Your task to perform on an android device: Open Youtube and go to "Your channel" Image 0: 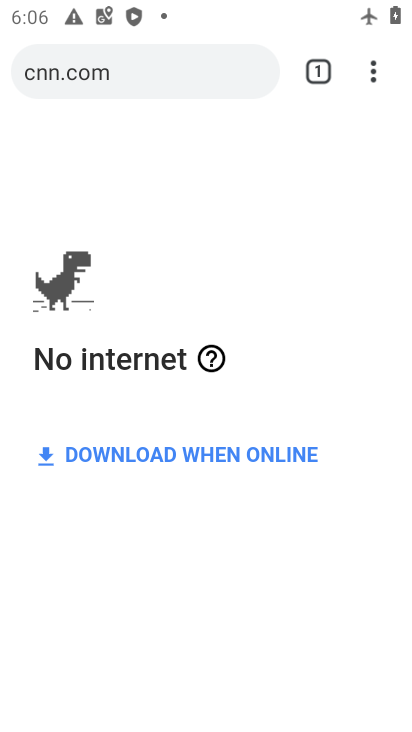
Step 0: press home button
Your task to perform on an android device: Open Youtube and go to "Your channel" Image 1: 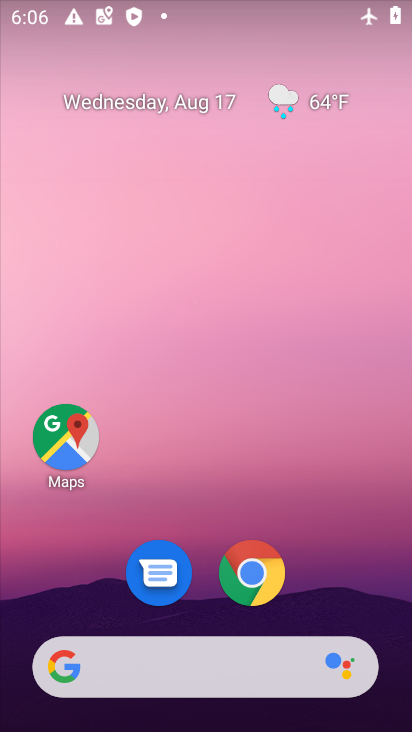
Step 1: drag from (328, 549) to (258, 225)
Your task to perform on an android device: Open Youtube and go to "Your channel" Image 2: 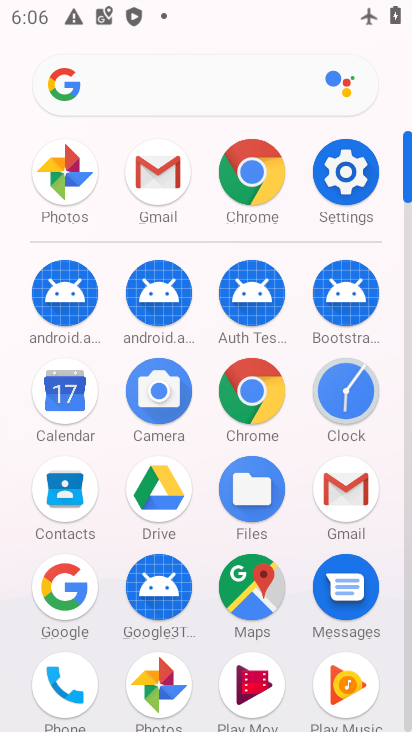
Step 2: drag from (293, 619) to (275, 265)
Your task to perform on an android device: Open Youtube and go to "Your channel" Image 3: 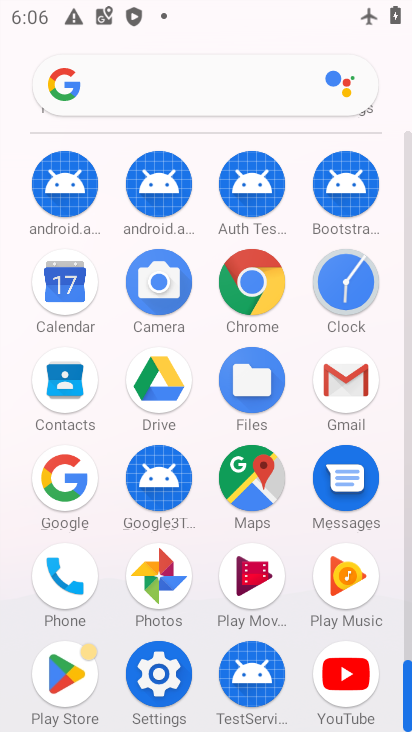
Step 3: click (353, 666)
Your task to perform on an android device: Open Youtube and go to "Your channel" Image 4: 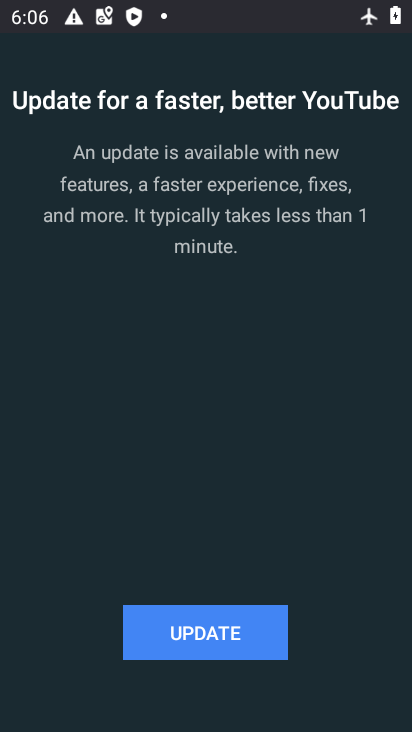
Step 4: click (260, 649)
Your task to perform on an android device: Open Youtube and go to "Your channel" Image 5: 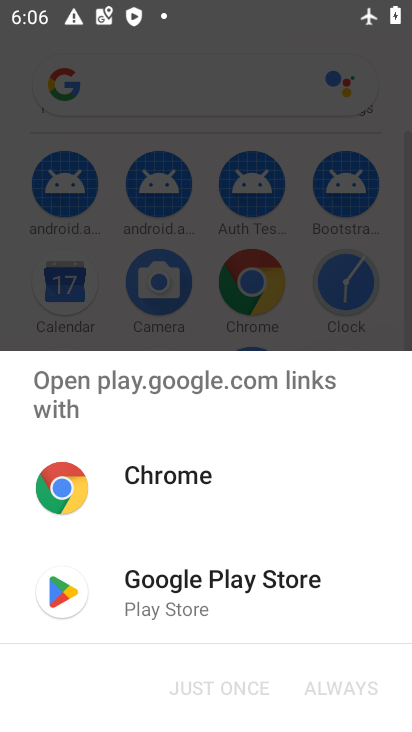
Step 5: click (183, 615)
Your task to perform on an android device: Open Youtube and go to "Your channel" Image 6: 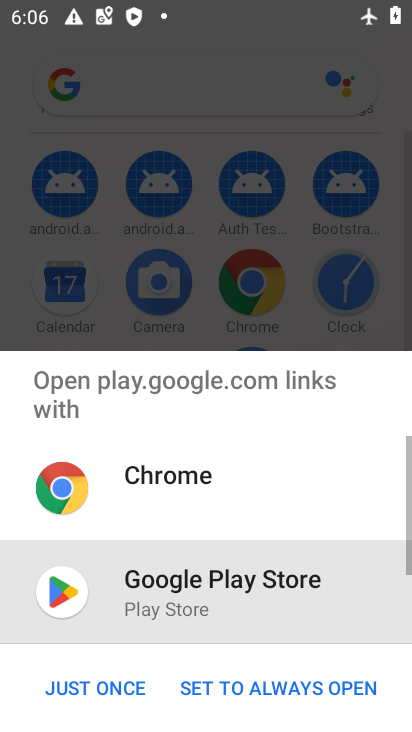
Step 6: click (118, 691)
Your task to perform on an android device: Open Youtube and go to "Your channel" Image 7: 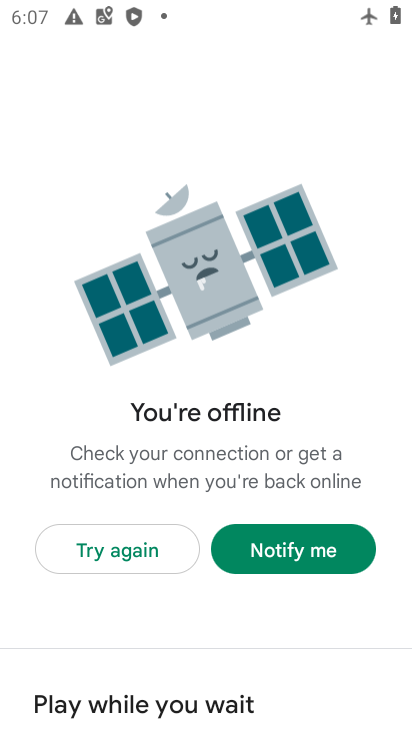
Step 7: task complete